Your task to perform on an android device: Open calendar and show me the third week of next month Image 0: 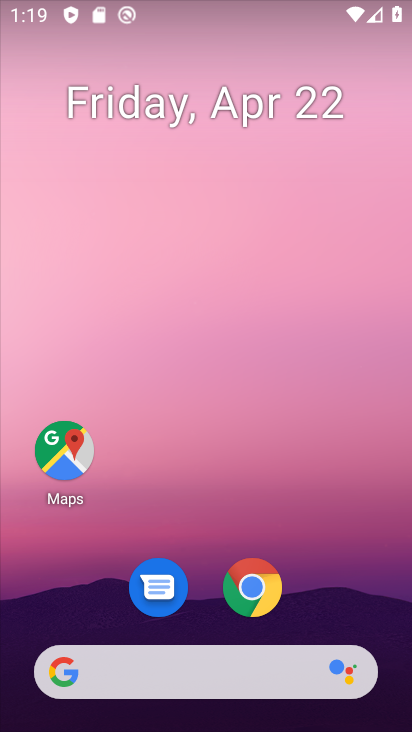
Step 0: drag from (210, 615) to (204, 272)
Your task to perform on an android device: Open calendar and show me the third week of next month Image 1: 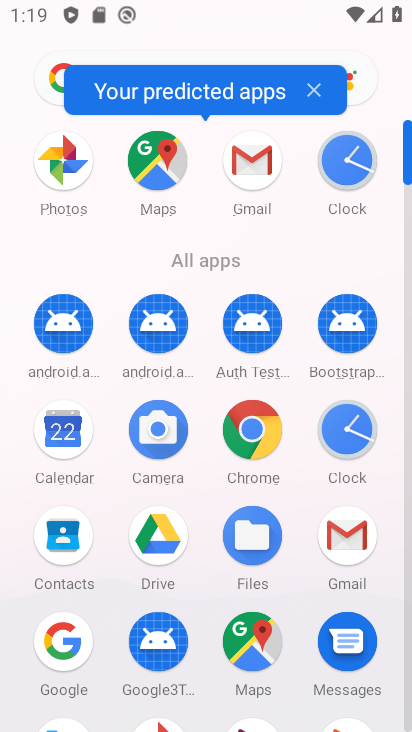
Step 1: click (74, 446)
Your task to perform on an android device: Open calendar and show me the third week of next month Image 2: 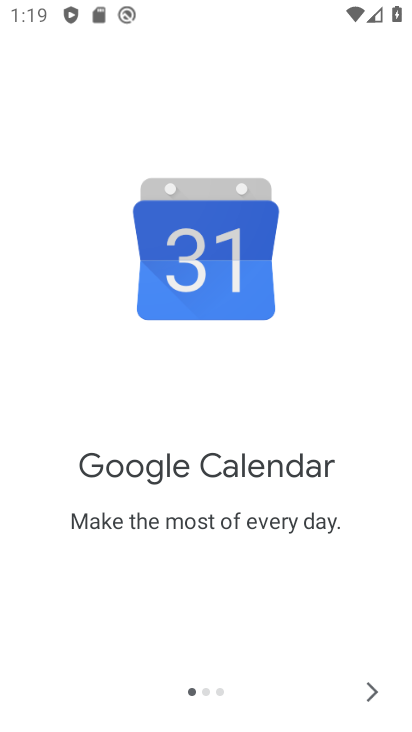
Step 2: click (365, 703)
Your task to perform on an android device: Open calendar and show me the third week of next month Image 3: 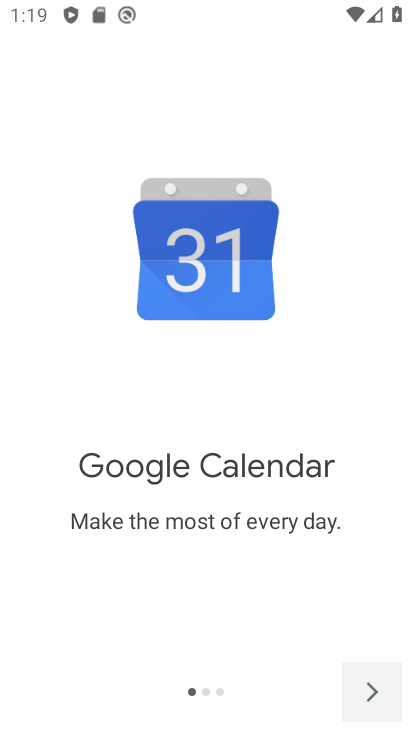
Step 3: click (363, 700)
Your task to perform on an android device: Open calendar and show me the third week of next month Image 4: 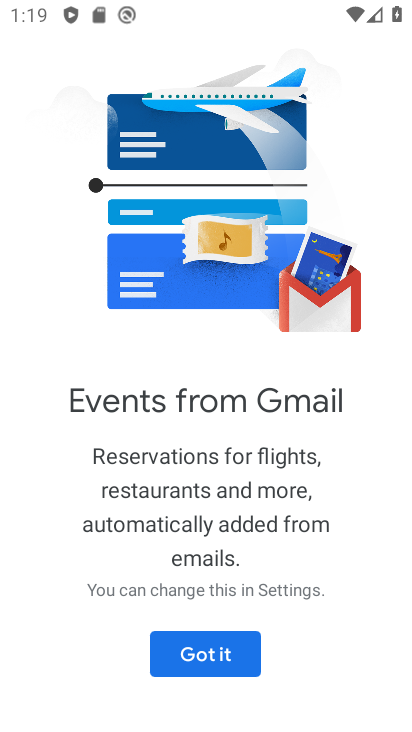
Step 4: click (362, 699)
Your task to perform on an android device: Open calendar and show me the third week of next month Image 5: 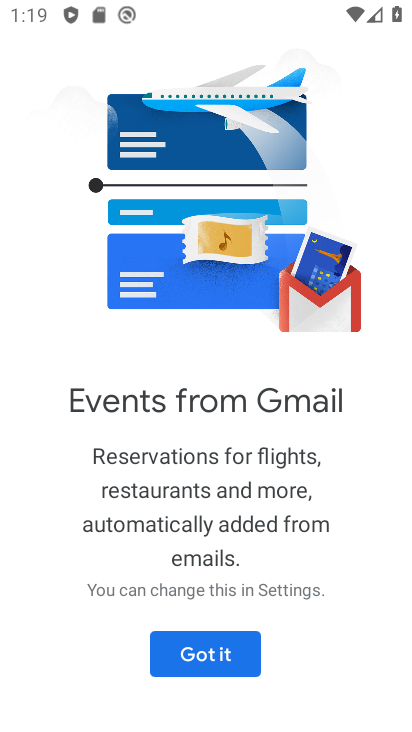
Step 5: click (215, 659)
Your task to perform on an android device: Open calendar and show me the third week of next month Image 6: 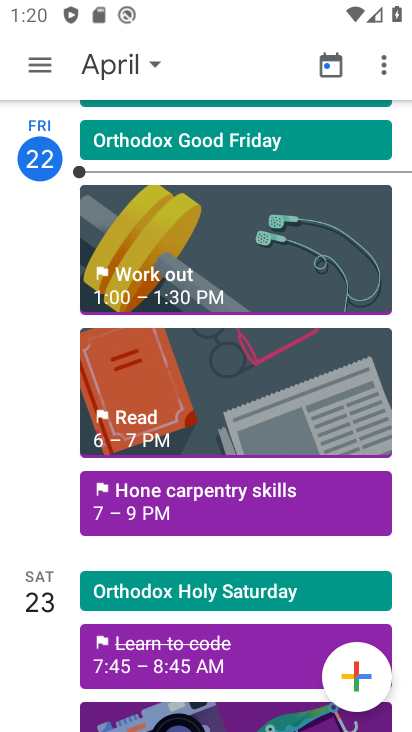
Step 6: click (156, 68)
Your task to perform on an android device: Open calendar and show me the third week of next month Image 7: 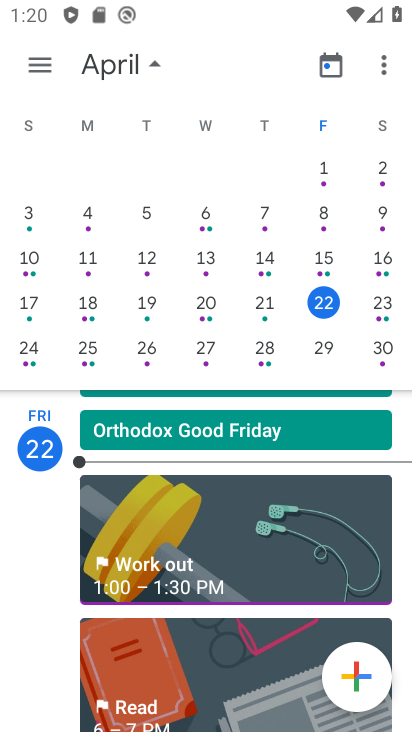
Step 7: drag from (323, 262) to (5, 309)
Your task to perform on an android device: Open calendar and show me the third week of next month Image 8: 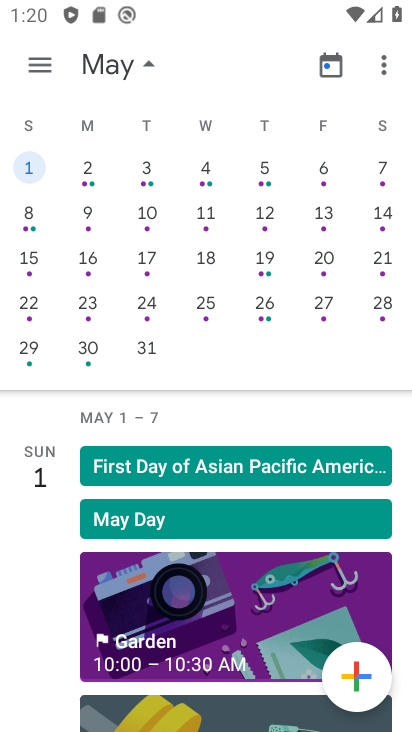
Step 8: click (35, 266)
Your task to perform on an android device: Open calendar and show me the third week of next month Image 9: 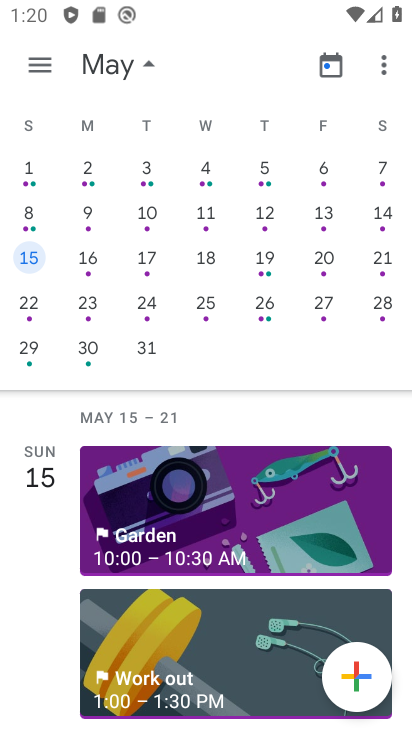
Step 9: task complete